Your task to perform on an android device: change text size in settings app Image 0: 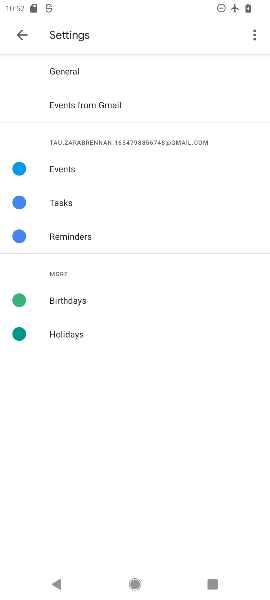
Step 0: press home button
Your task to perform on an android device: change text size in settings app Image 1: 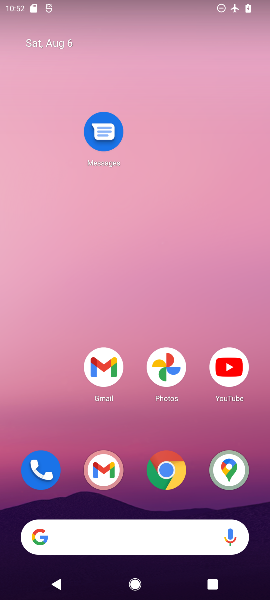
Step 1: drag from (209, 507) to (167, 90)
Your task to perform on an android device: change text size in settings app Image 2: 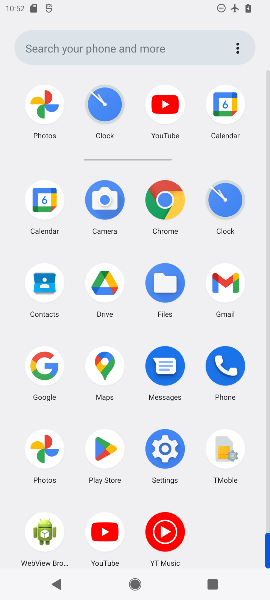
Step 2: click (171, 458)
Your task to perform on an android device: change text size in settings app Image 3: 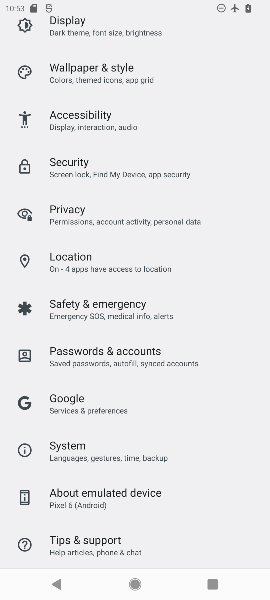
Step 3: drag from (192, 166) to (239, 599)
Your task to perform on an android device: change text size in settings app Image 4: 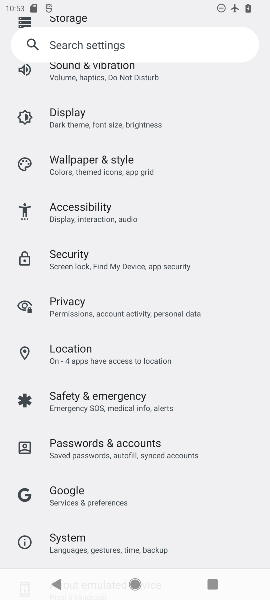
Step 4: click (114, 123)
Your task to perform on an android device: change text size in settings app Image 5: 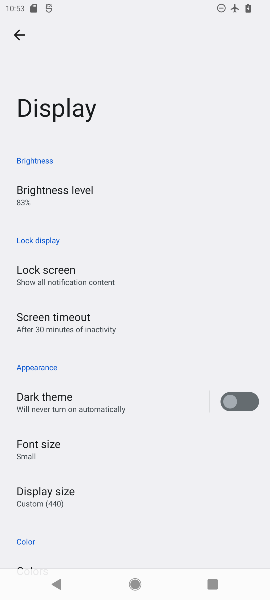
Step 5: drag from (139, 455) to (180, 280)
Your task to perform on an android device: change text size in settings app Image 6: 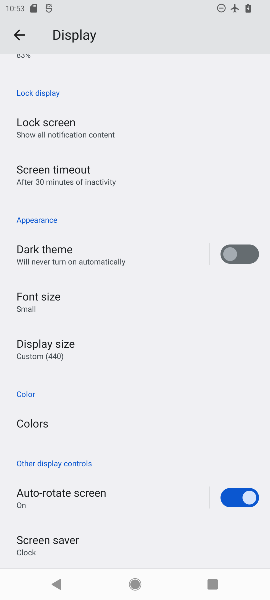
Step 6: click (60, 309)
Your task to perform on an android device: change text size in settings app Image 7: 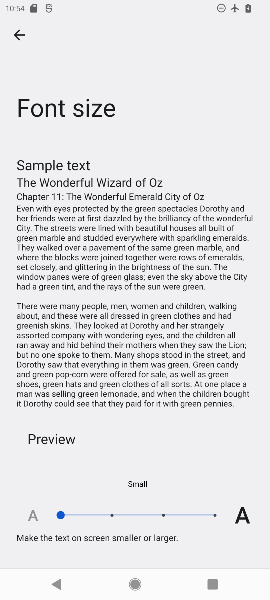
Step 7: click (109, 513)
Your task to perform on an android device: change text size in settings app Image 8: 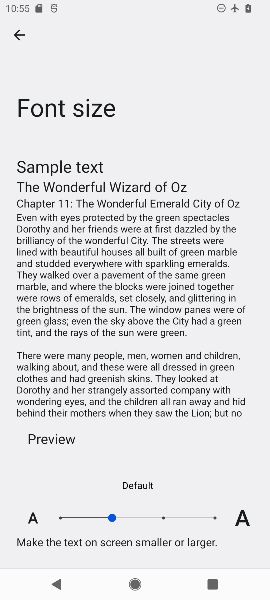
Step 8: task complete